Your task to perform on an android device: choose inbox layout in the gmail app Image 0: 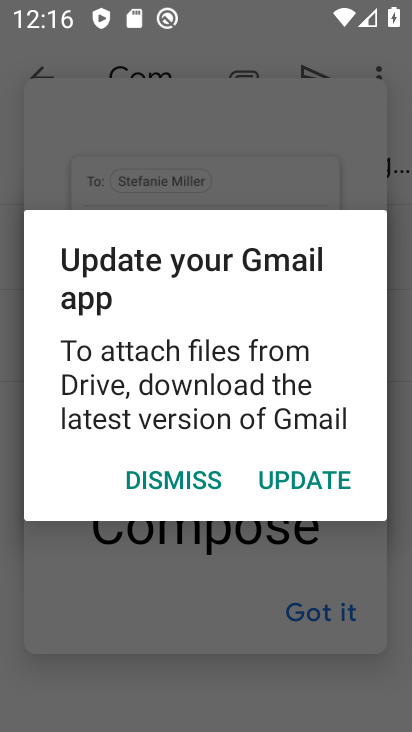
Step 0: press home button
Your task to perform on an android device: choose inbox layout in the gmail app Image 1: 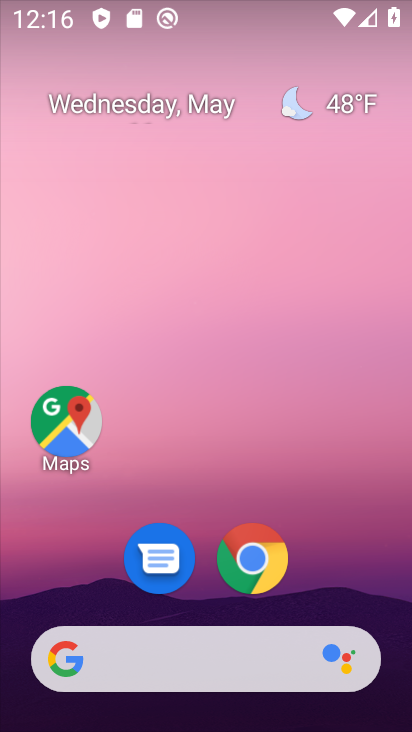
Step 1: drag from (333, 552) to (345, 86)
Your task to perform on an android device: choose inbox layout in the gmail app Image 2: 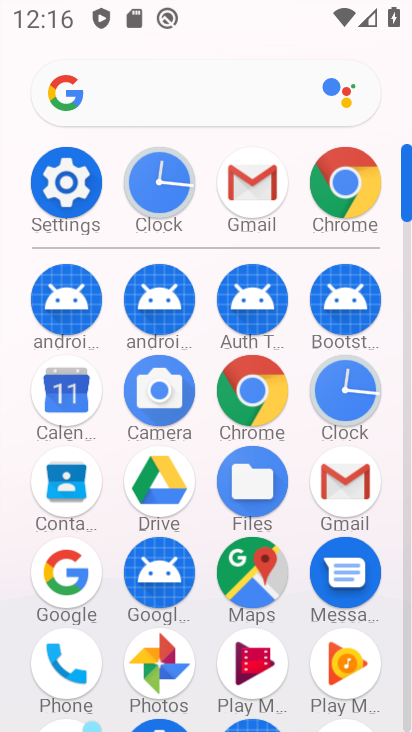
Step 2: click (365, 502)
Your task to perform on an android device: choose inbox layout in the gmail app Image 3: 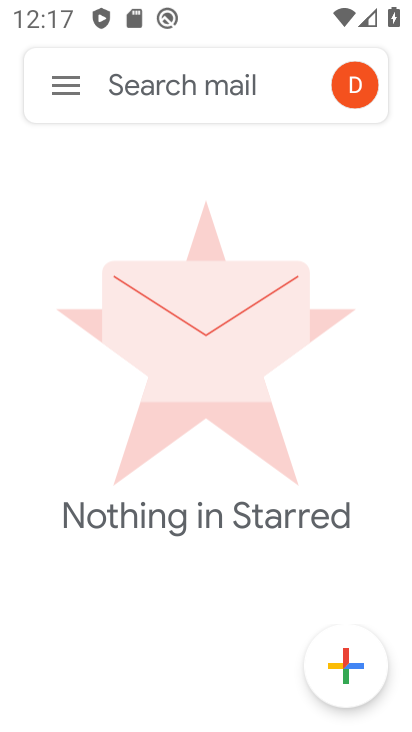
Step 3: click (68, 79)
Your task to perform on an android device: choose inbox layout in the gmail app Image 4: 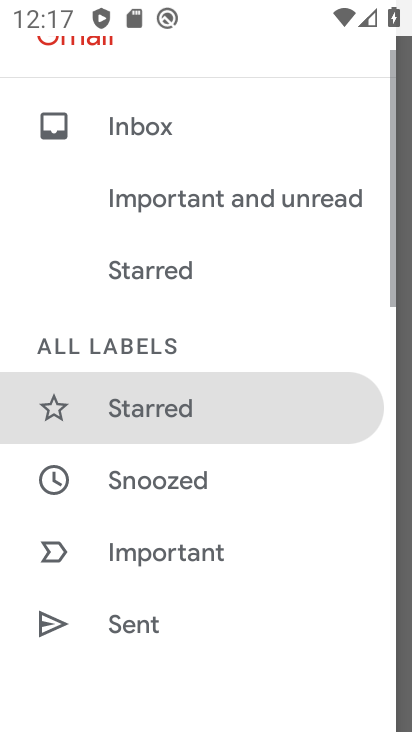
Step 4: drag from (191, 637) to (256, 106)
Your task to perform on an android device: choose inbox layout in the gmail app Image 5: 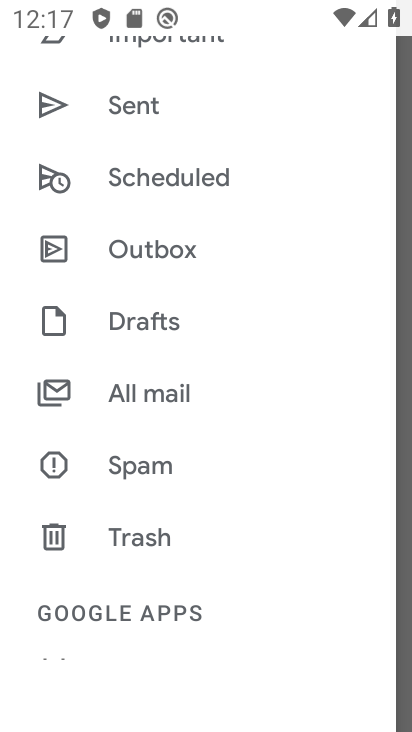
Step 5: drag from (280, 597) to (262, 67)
Your task to perform on an android device: choose inbox layout in the gmail app Image 6: 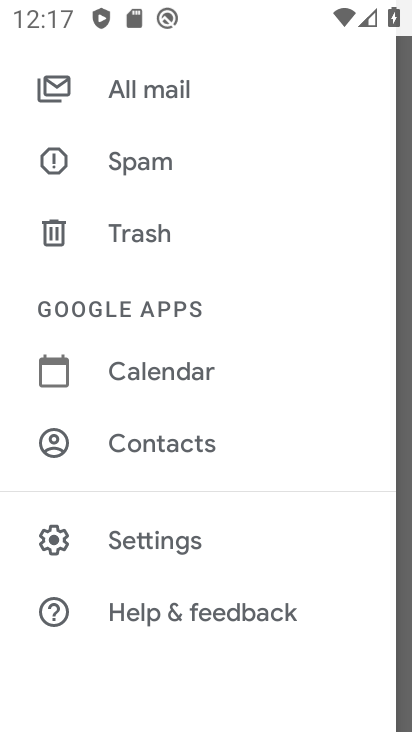
Step 6: click (207, 556)
Your task to perform on an android device: choose inbox layout in the gmail app Image 7: 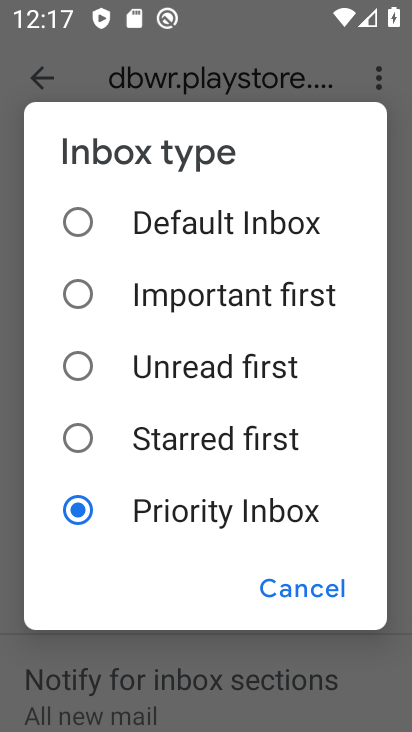
Step 7: click (70, 218)
Your task to perform on an android device: choose inbox layout in the gmail app Image 8: 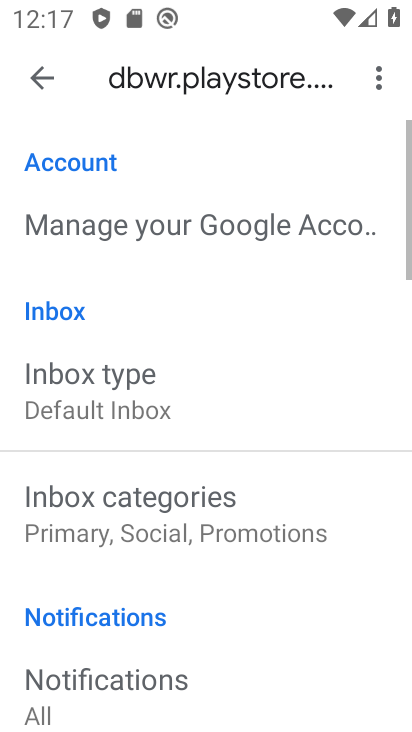
Step 8: task complete